Your task to perform on an android device: Open Chrome and go to the settings page Image 0: 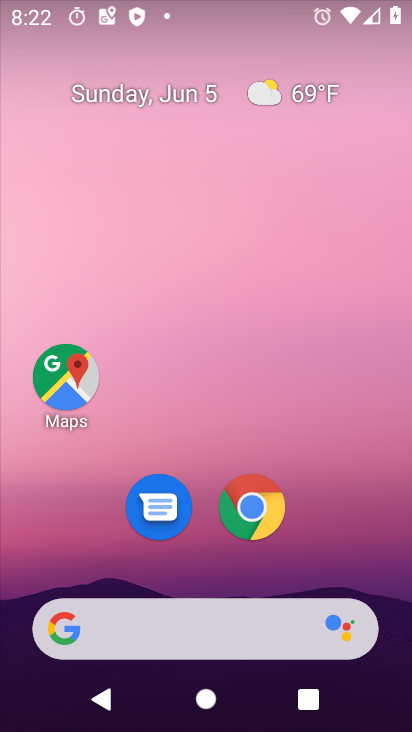
Step 0: drag from (320, 518) to (193, 7)
Your task to perform on an android device: Open Chrome and go to the settings page Image 1: 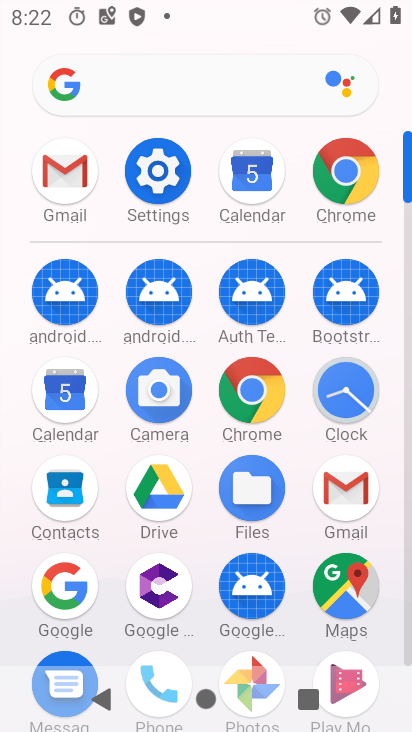
Step 1: drag from (14, 622) to (9, 283)
Your task to perform on an android device: Open Chrome and go to the settings page Image 2: 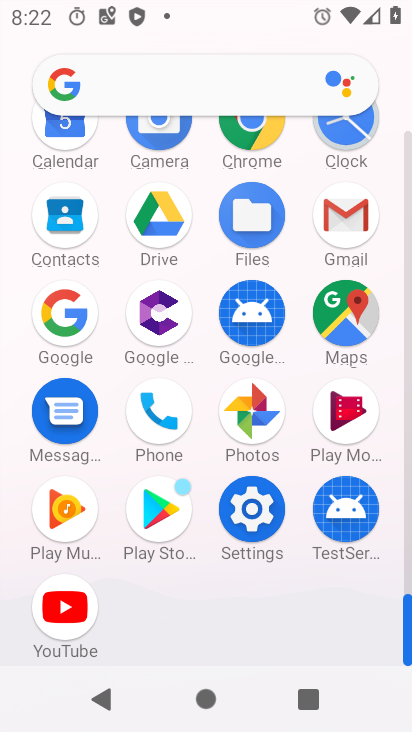
Step 2: drag from (17, 176) to (1, 463)
Your task to perform on an android device: Open Chrome and go to the settings page Image 3: 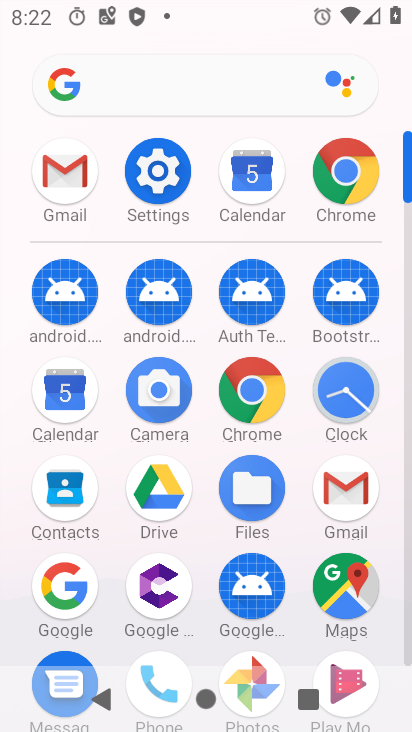
Step 3: click (252, 383)
Your task to perform on an android device: Open Chrome and go to the settings page Image 4: 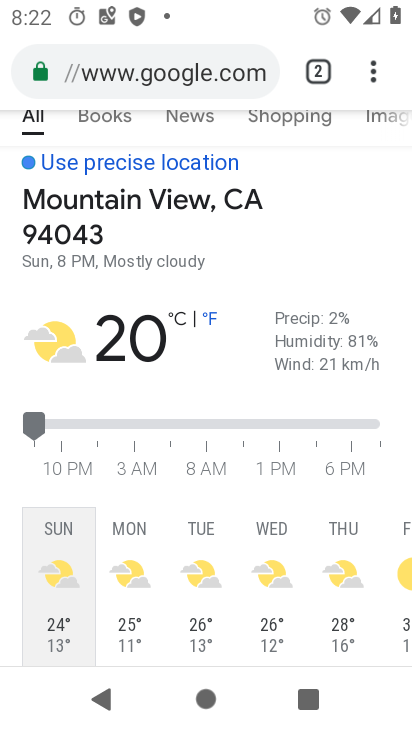
Step 4: task complete